Your task to perform on an android device: What is the news today? Image 0: 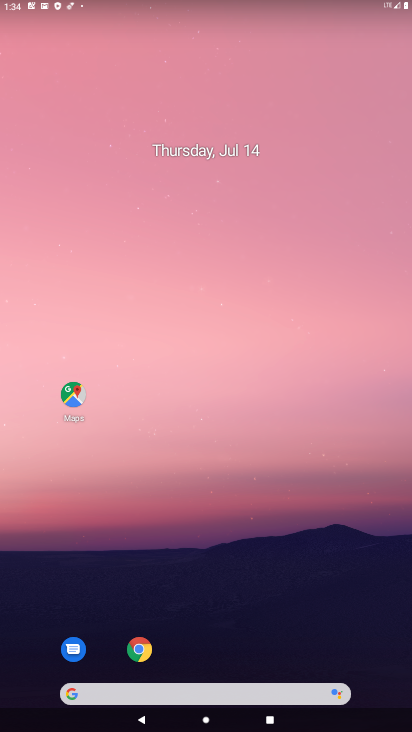
Step 0: drag from (366, 634) to (87, 7)
Your task to perform on an android device: What is the news today? Image 1: 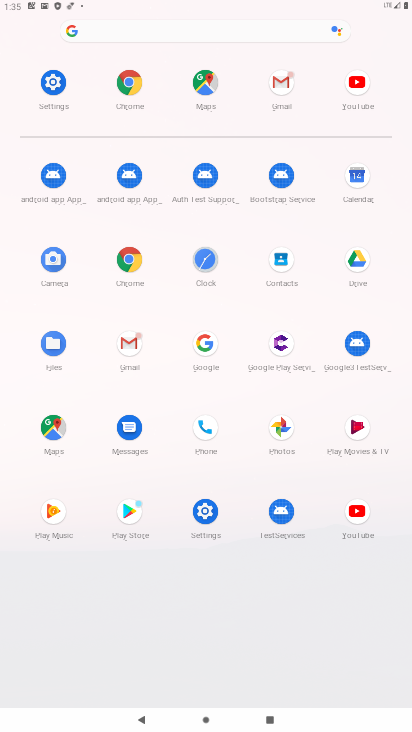
Step 1: click (200, 345)
Your task to perform on an android device: What is the news today? Image 2: 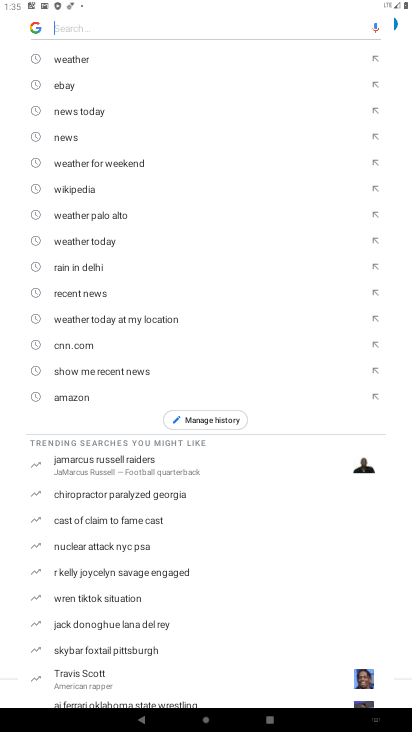
Step 2: type "What is the news today?"
Your task to perform on an android device: What is the news today? Image 3: 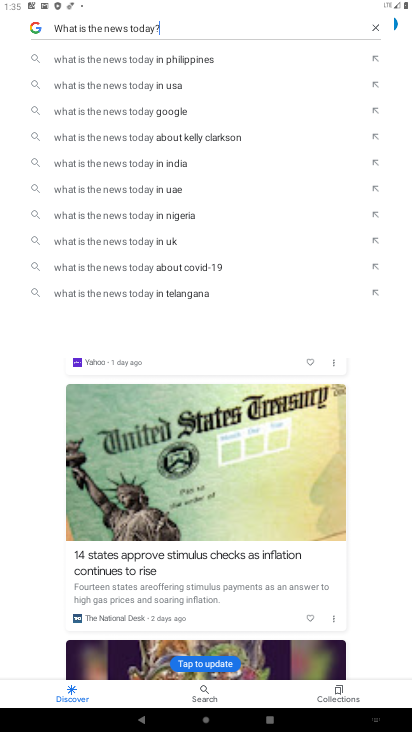
Step 3: click (120, 114)
Your task to perform on an android device: What is the news today? Image 4: 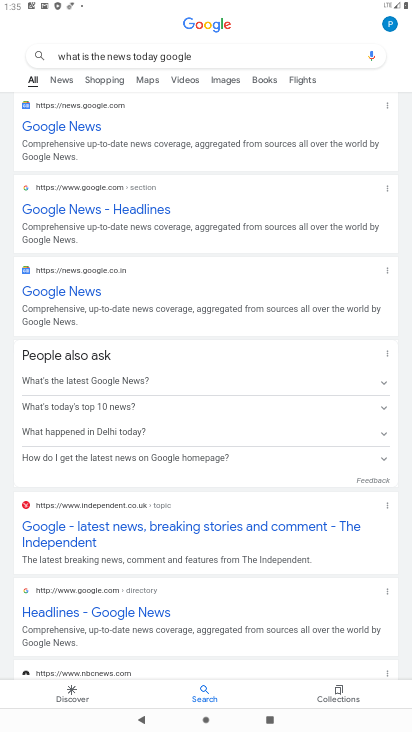
Step 4: task complete